Your task to perform on an android device: turn notification dots on Image 0: 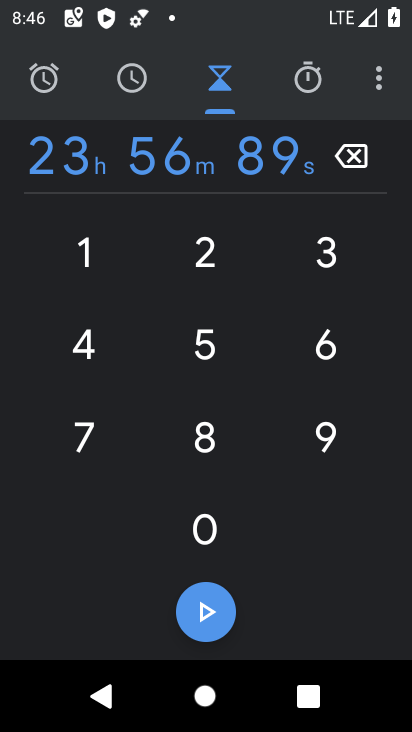
Step 0: press back button
Your task to perform on an android device: turn notification dots on Image 1: 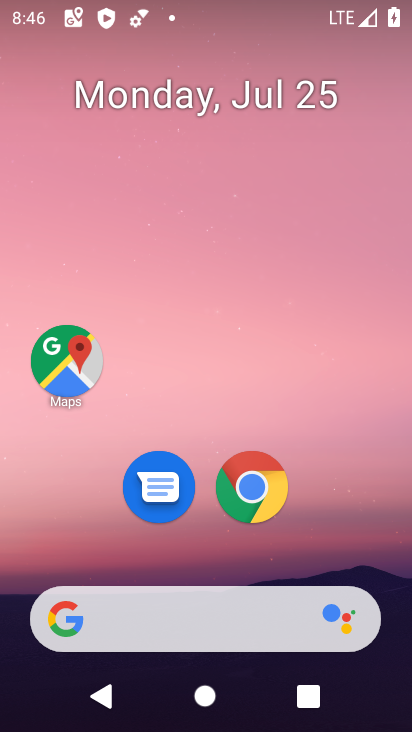
Step 1: drag from (71, 552) to (262, 1)
Your task to perform on an android device: turn notification dots on Image 2: 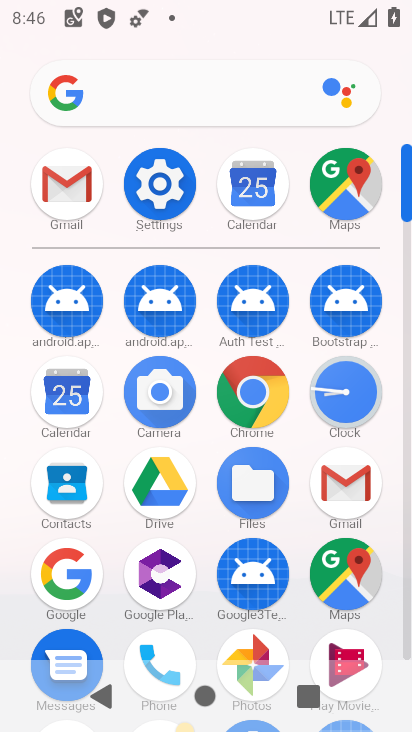
Step 2: click (155, 195)
Your task to perform on an android device: turn notification dots on Image 3: 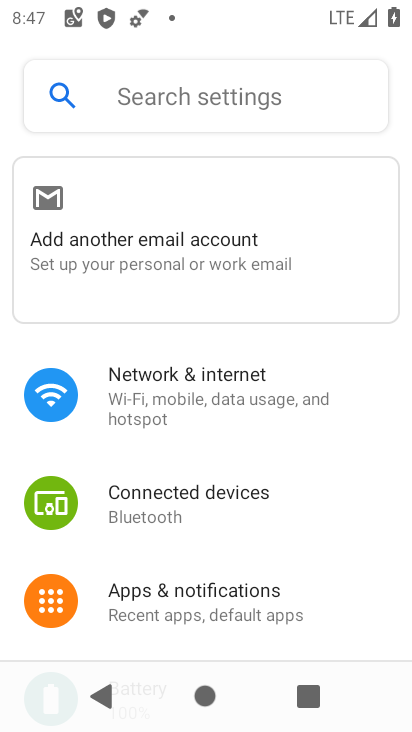
Step 3: click (202, 603)
Your task to perform on an android device: turn notification dots on Image 4: 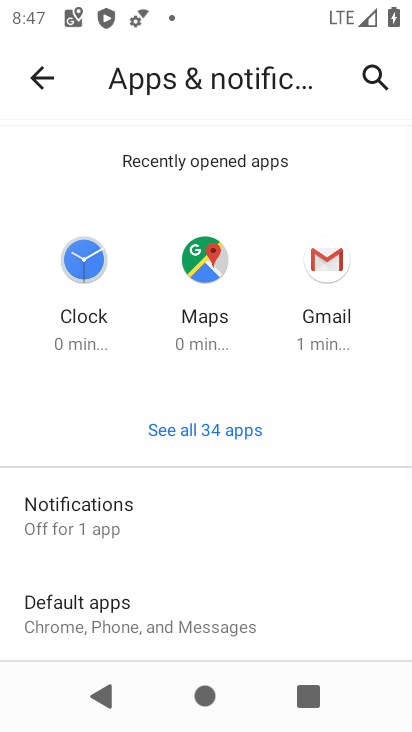
Step 4: drag from (165, 579) to (248, 28)
Your task to perform on an android device: turn notification dots on Image 5: 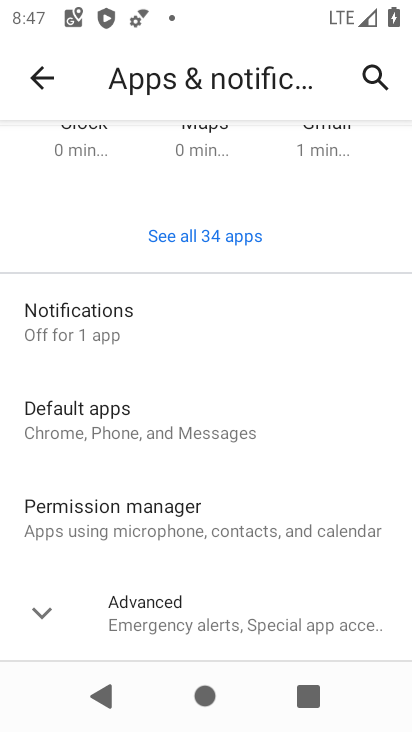
Step 5: click (174, 610)
Your task to perform on an android device: turn notification dots on Image 6: 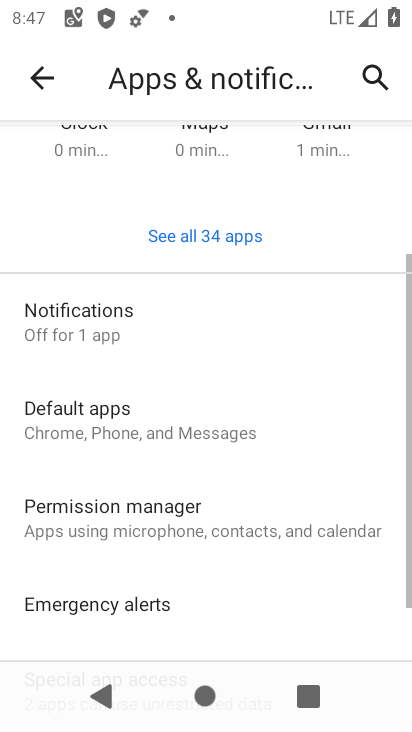
Step 6: drag from (173, 585) to (321, 0)
Your task to perform on an android device: turn notification dots on Image 7: 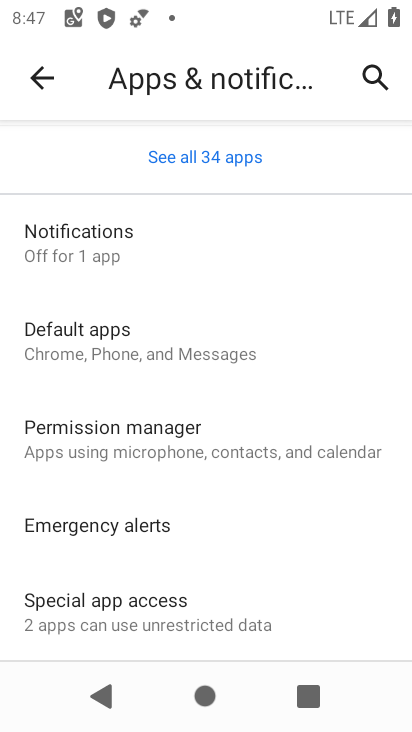
Step 7: click (170, 234)
Your task to perform on an android device: turn notification dots on Image 8: 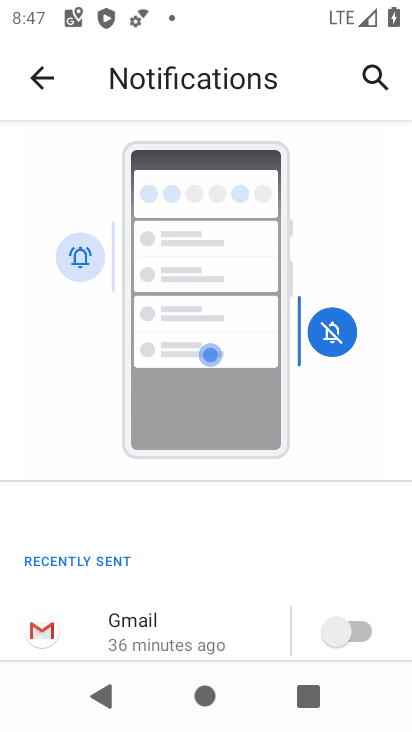
Step 8: drag from (173, 613) to (331, 25)
Your task to perform on an android device: turn notification dots on Image 9: 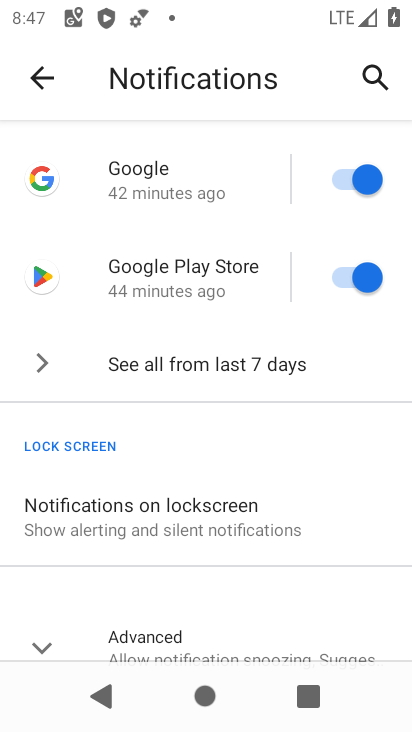
Step 9: click (181, 632)
Your task to perform on an android device: turn notification dots on Image 10: 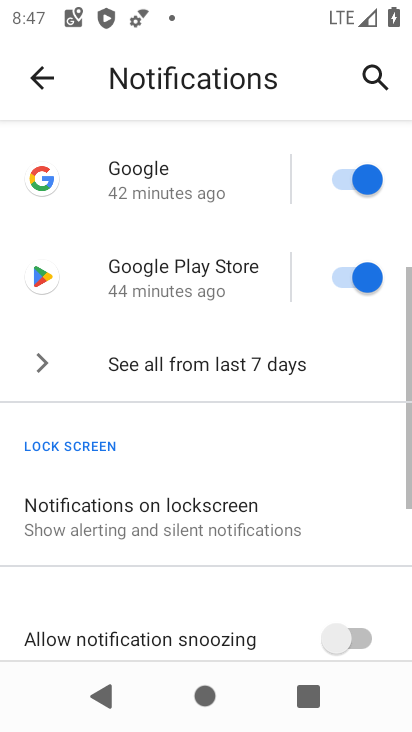
Step 10: task complete